Your task to perform on an android device: change timer sound Image 0: 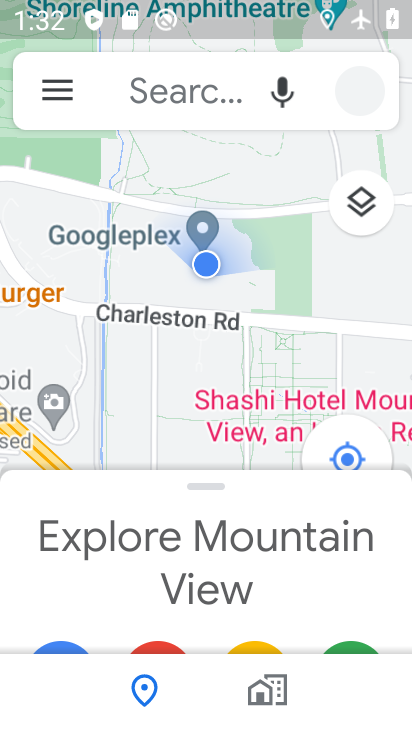
Step 0: press home button
Your task to perform on an android device: change timer sound Image 1: 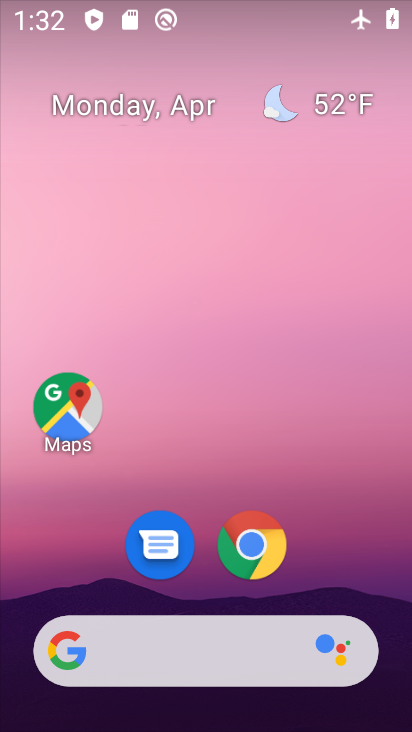
Step 1: drag from (208, 722) to (174, 201)
Your task to perform on an android device: change timer sound Image 2: 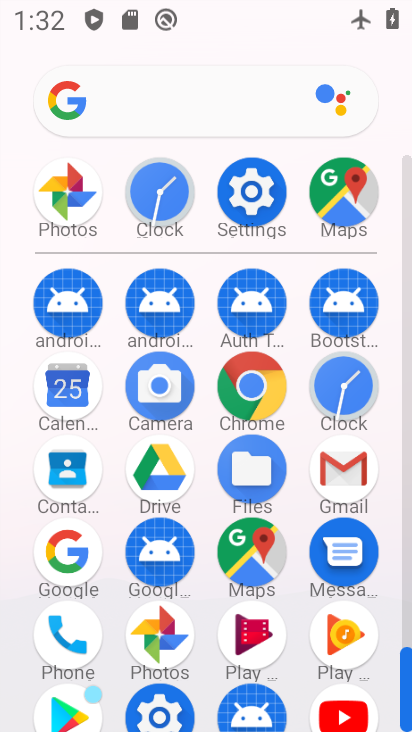
Step 2: click (342, 383)
Your task to perform on an android device: change timer sound Image 3: 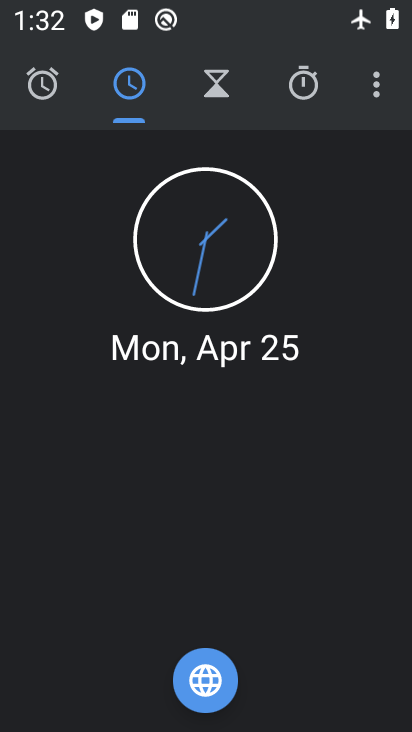
Step 3: click (374, 90)
Your task to perform on an android device: change timer sound Image 4: 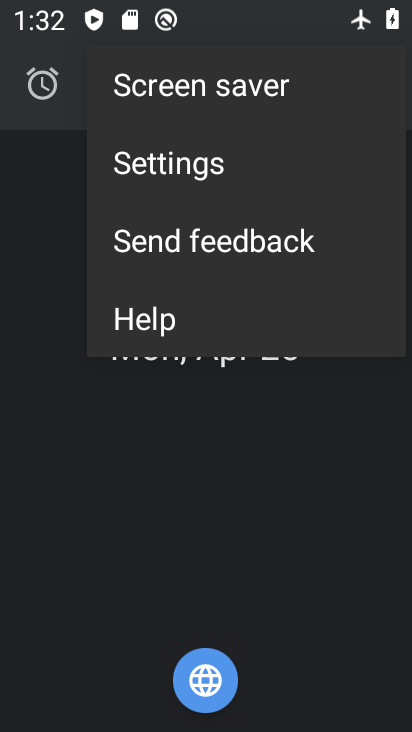
Step 4: click (172, 165)
Your task to perform on an android device: change timer sound Image 5: 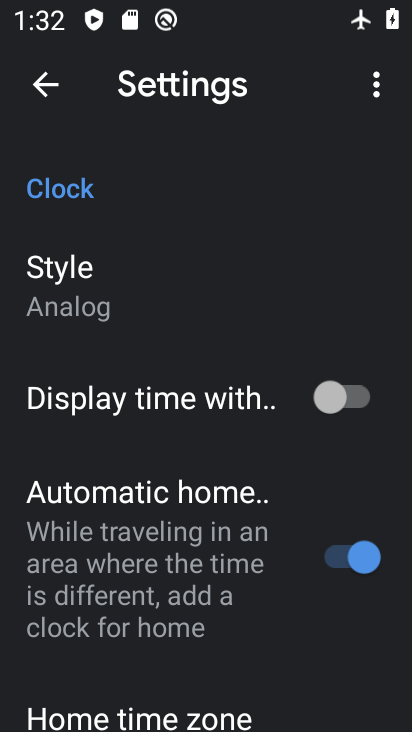
Step 5: drag from (139, 678) to (151, 304)
Your task to perform on an android device: change timer sound Image 6: 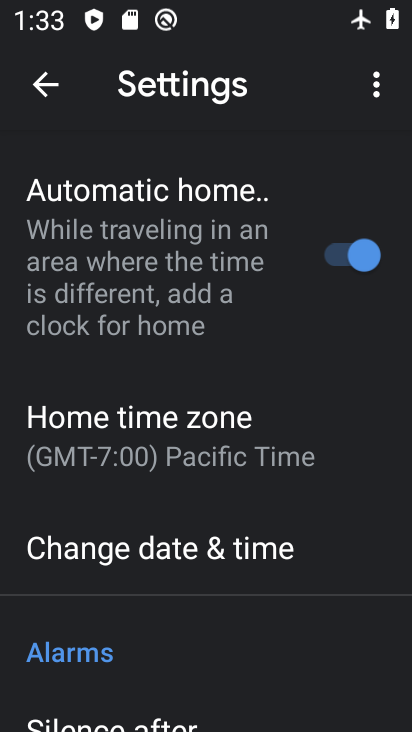
Step 6: drag from (141, 669) to (136, 395)
Your task to perform on an android device: change timer sound Image 7: 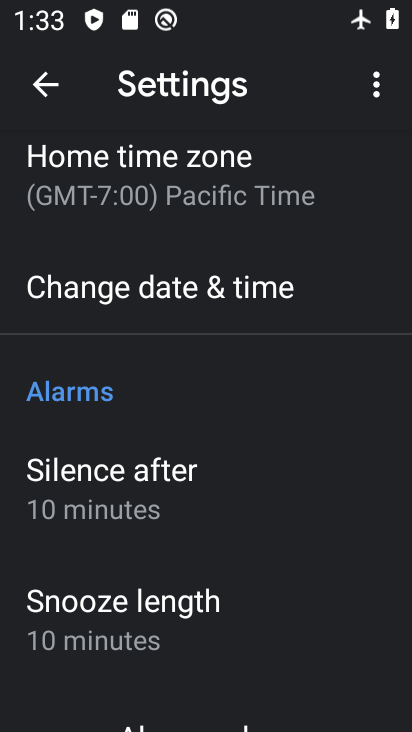
Step 7: drag from (238, 656) to (239, 301)
Your task to perform on an android device: change timer sound Image 8: 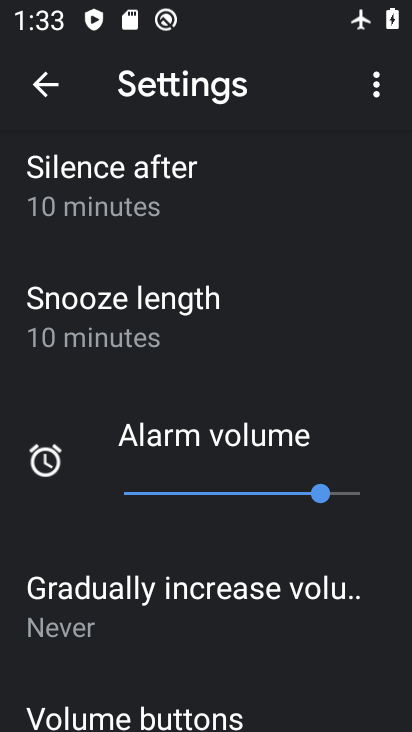
Step 8: drag from (160, 661) to (182, 242)
Your task to perform on an android device: change timer sound Image 9: 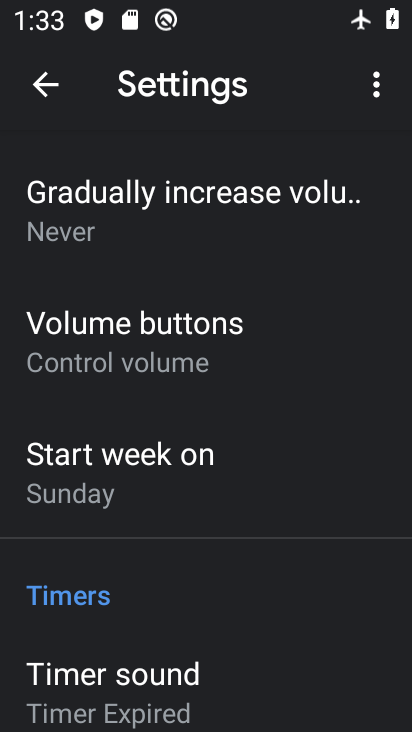
Step 9: click (148, 679)
Your task to perform on an android device: change timer sound Image 10: 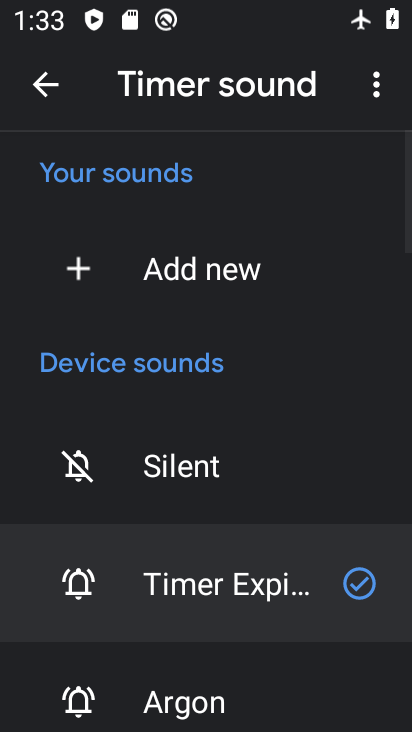
Step 10: click (204, 688)
Your task to perform on an android device: change timer sound Image 11: 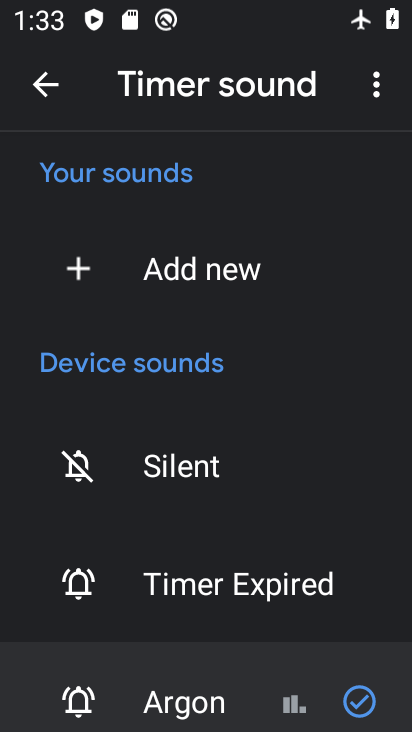
Step 11: task complete